Your task to perform on an android device: toggle notification dots Image 0: 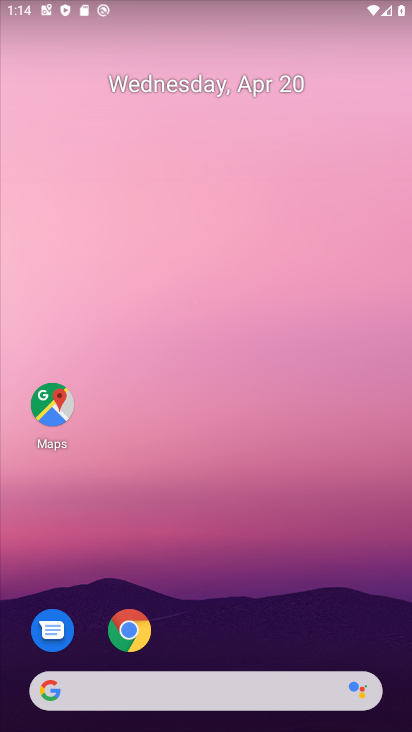
Step 0: drag from (392, 645) to (375, 284)
Your task to perform on an android device: toggle notification dots Image 1: 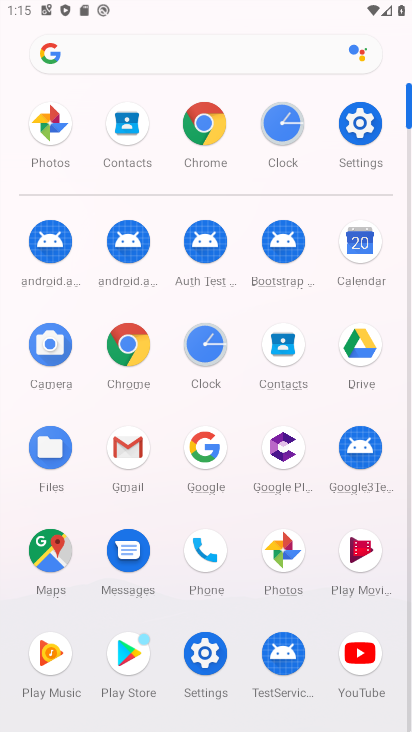
Step 1: click (364, 122)
Your task to perform on an android device: toggle notification dots Image 2: 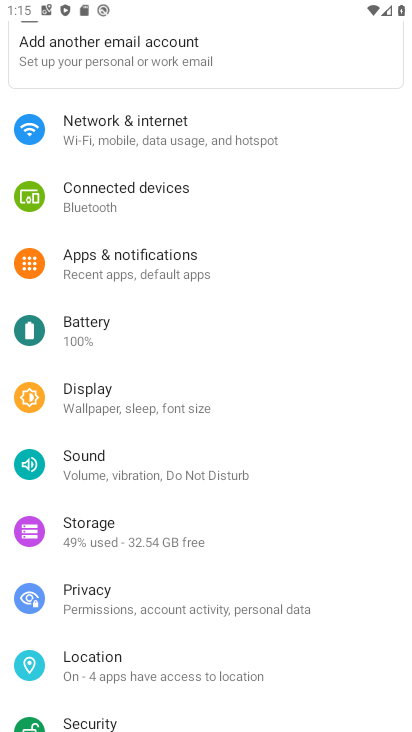
Step 2: drag from (287, 531) to (282, 284)
Your task to perform on an android device: toggle notification dots Image 3: 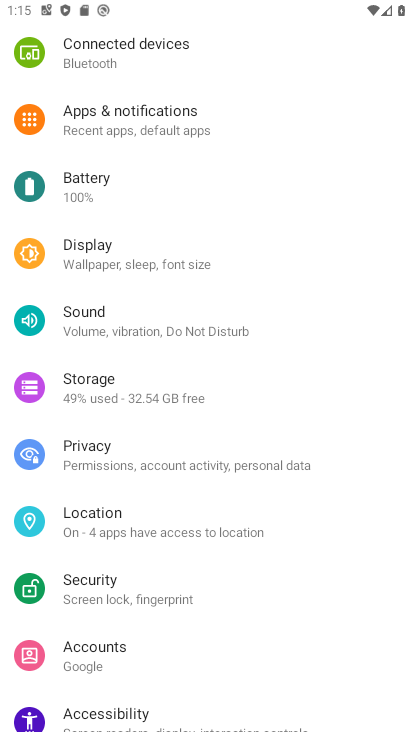
Step 3: click (192, 120)
Your task to perform on an android device: toggle notification dots Image 4: 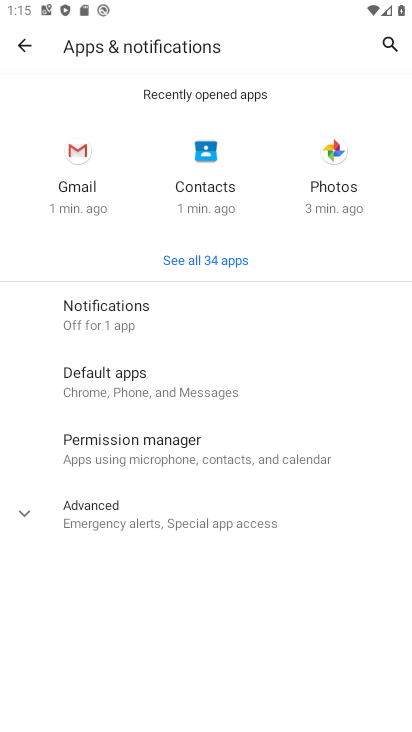
Step 4: click (127, 330)
Your task to perform on an android device: toggle notification dots Image 5: 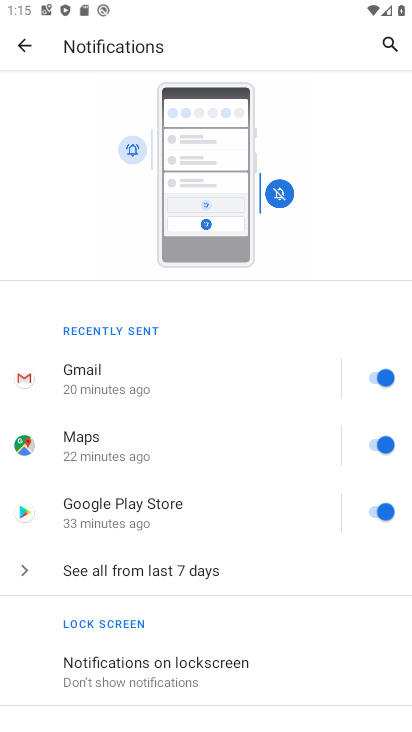
Step 5: drag from (321, 659) to (294, 338)
Your task to perform on an android device: toggle notification dots Image 6: 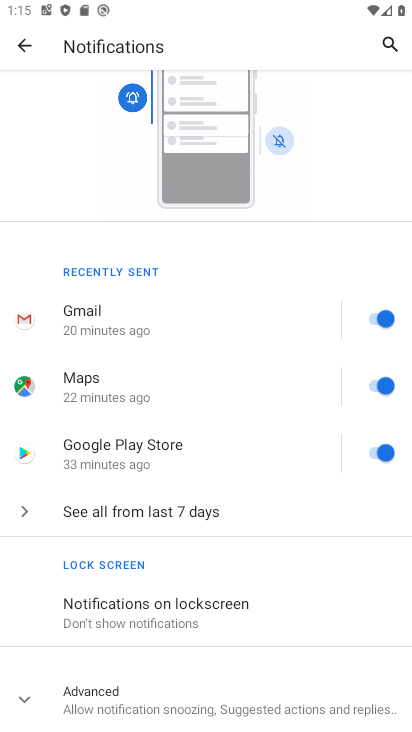
Step 6: click (202, 675)
Your task to perform on an android device: toggle notification dots Image 7: 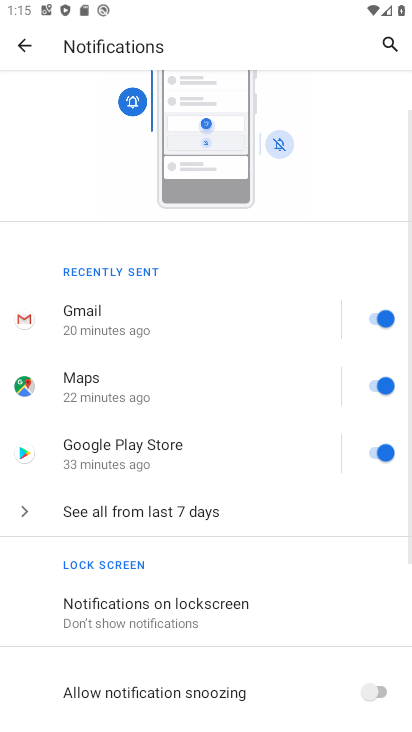
Step 7: drag from (270, 659) to (285, 337)
Your task to perform on an android device: toggle notification dots Image 8: 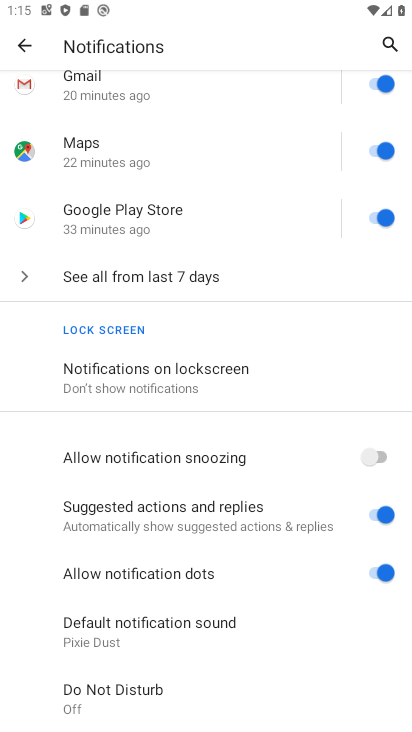
Step 8: click (375, 574)
Your task to perform on an android device: toggle notification dots Image 9: 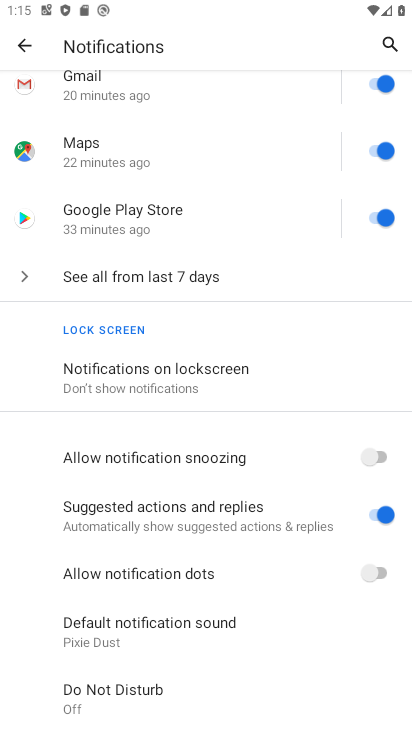
Step 9: task complete